Your task to perform on an android device: change the clock style Image 0: 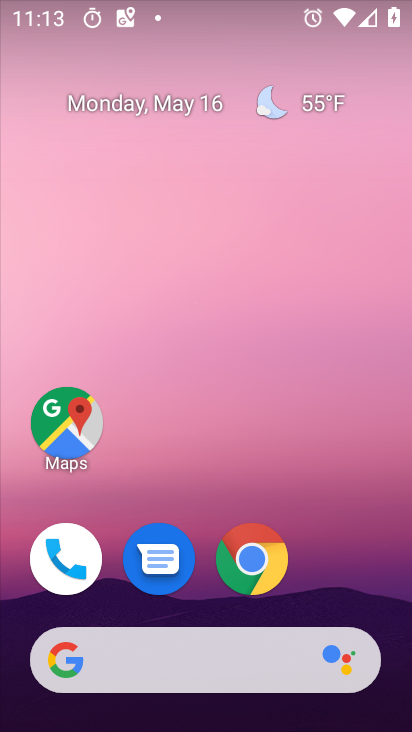
Step 0: click (341, 132)
Your task to perform on an android device: change the clock style Image 1: 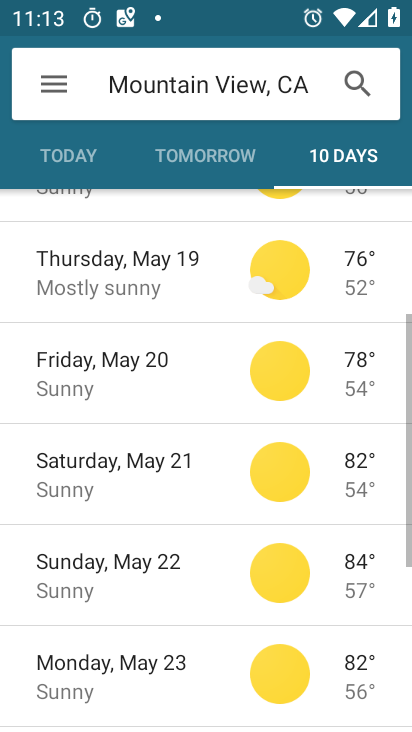
Step 1: drag from (362, 527) to (408, 230)
Your task to perform on an android device: change the clock style Image 2: 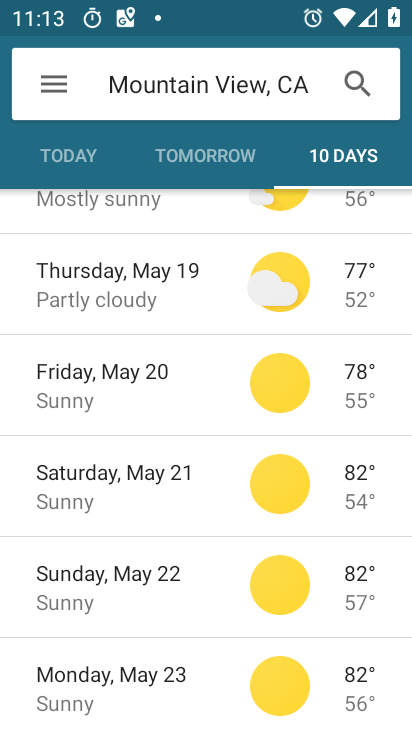
Step 2: press home button
Your task to perform on an android device: change the clock style Image 3: 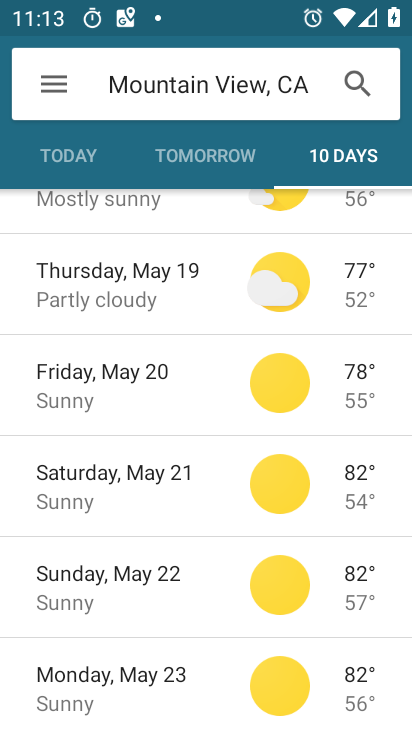
Step 3: drag from (408, 230) to (401, 521)
Your task to perform on an android device: change the clock style Image 4: 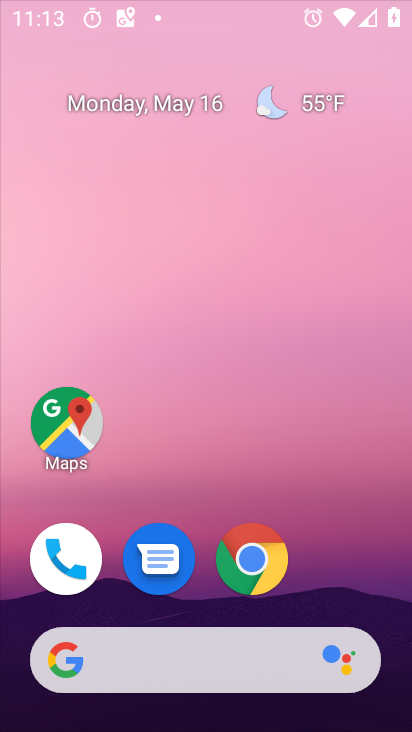
Step 4: drag from (339, 533) to (351, 104)
Your task to perform on an android device: change the clock style Image 5: 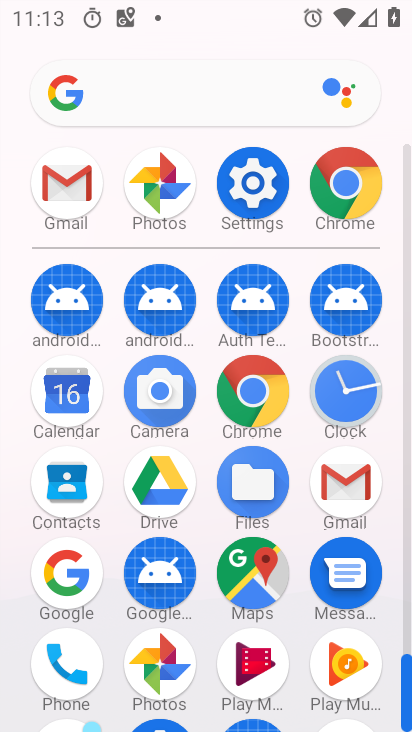
Step 5: click (332, 409)
Your task to perform on an android device: change the clock style Image 6: 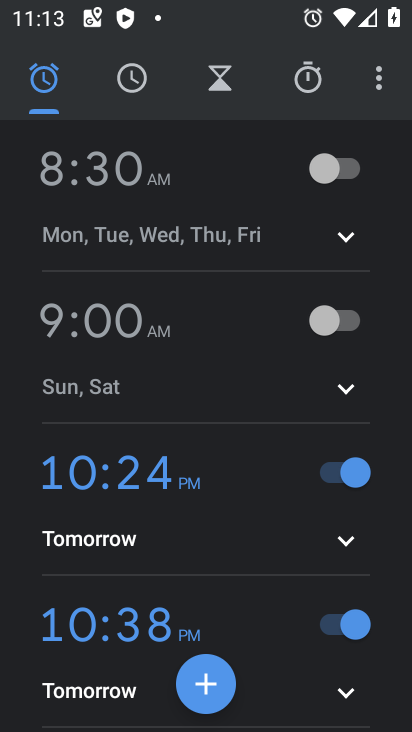
Step 6: click (389, 75)
Your task to perform on an android device: change the clock style Image 7: 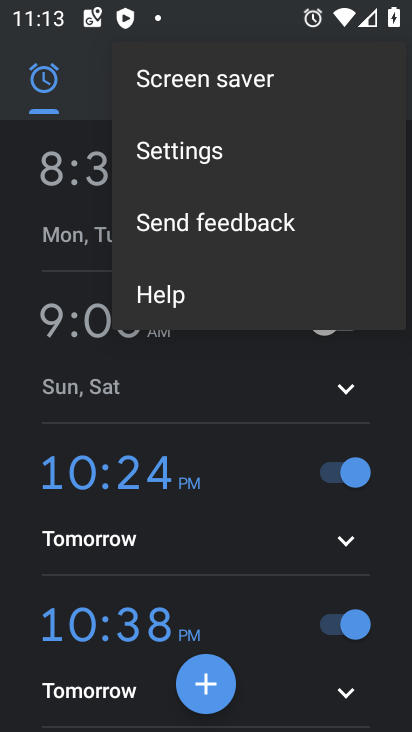
Step 7: click (213, 176)
Your task to perform on an android device: change the clock style Image 8: 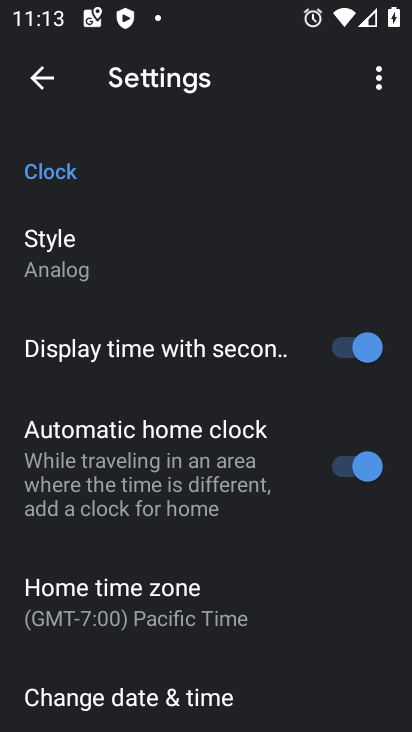
Step 8: click (77, 257)
Your task to perform on an android device: change the clock style Image 9: 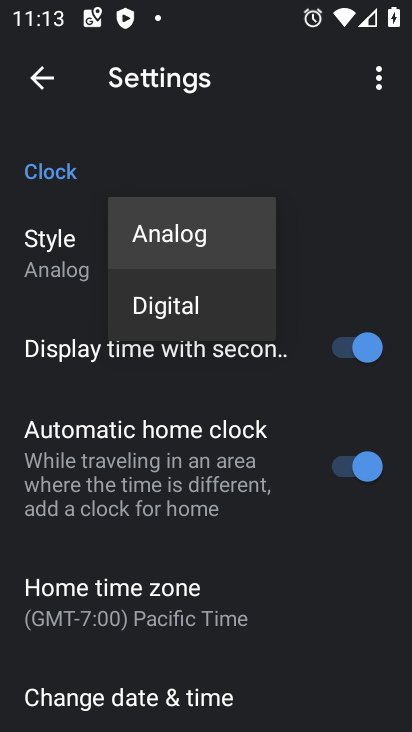
Step 9: click (233, 317)
Your task to perform on an android device: change the clock style Image 10: 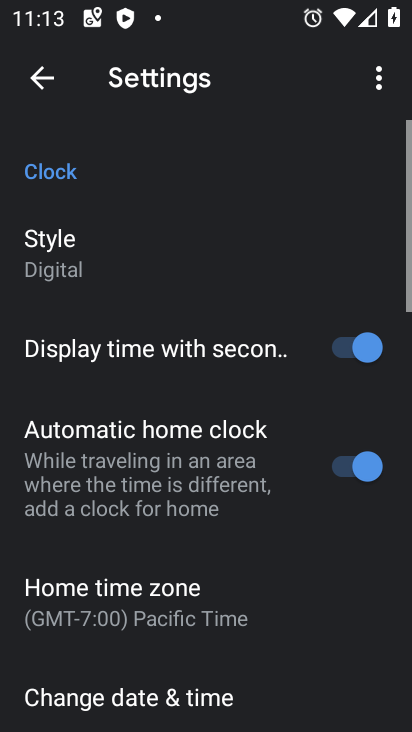
Step 10: task complete